Your task to perform on an android device: Go to network settings Image 0: 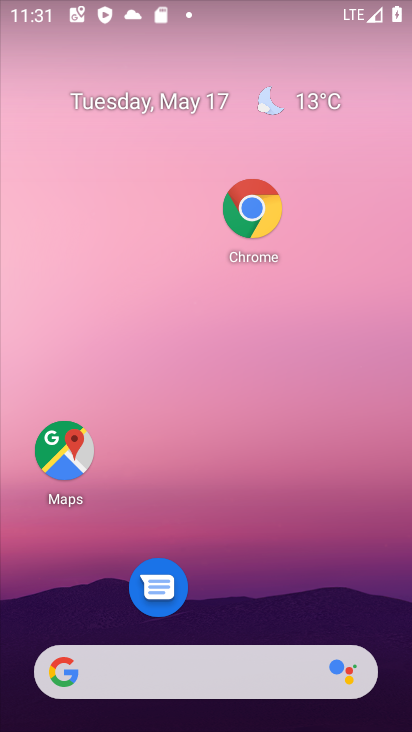
Step 0: drag from (251, 559) to (321, 176)
Your task to perform on an android device: Go to network settings Image 1: 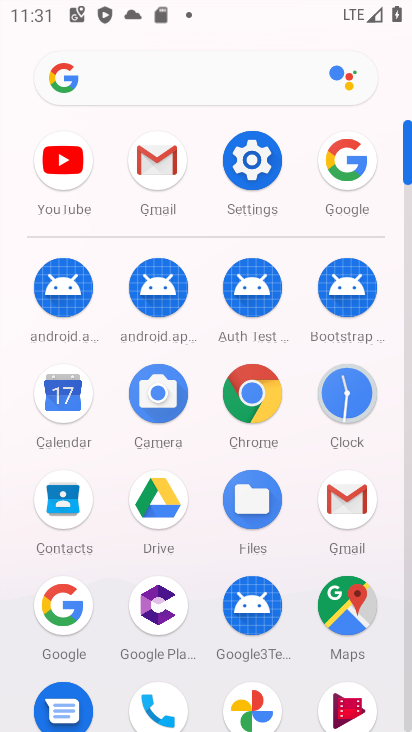
Step 1: click (258, 155)
Your task to perform on an android device: Go to network settings Image 2: 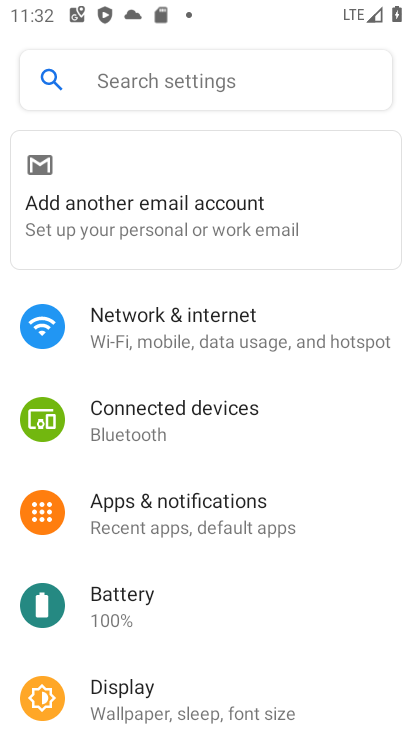
Step 2: click (200, 333)
Your task to perform on an android device: Go to network settings Image 3: 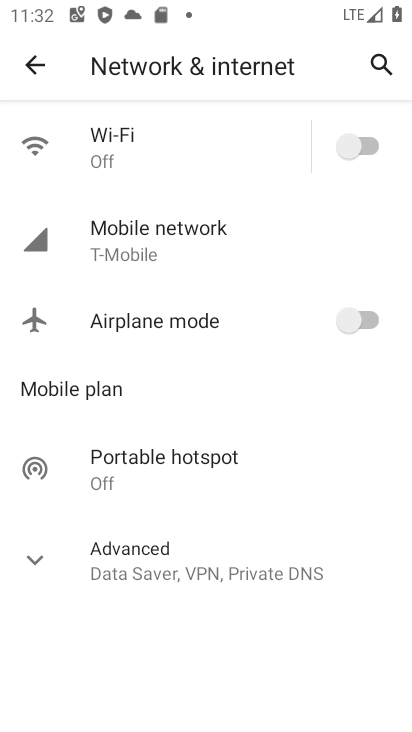
Step 3: task complete